Your task to perform on an android device: Check the news Image 0: 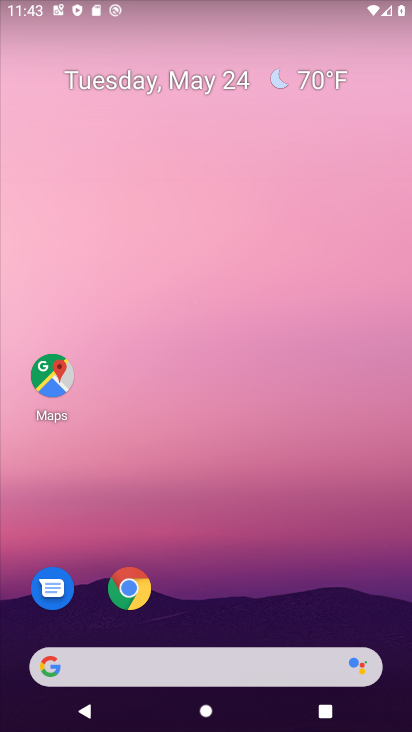
Step 0: drag from (6, 306) to (409, 283)
Your task to perform on an android device: Check the news Image 1: 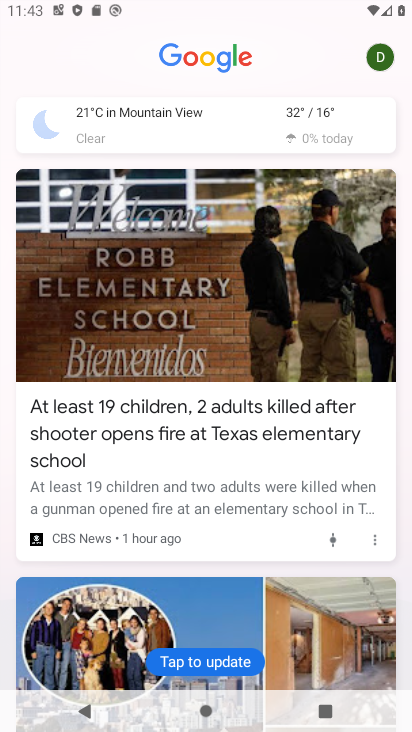
Step 1: task complete